Your task to perform on an android device: toggle javascript in the chrome app Image 0: 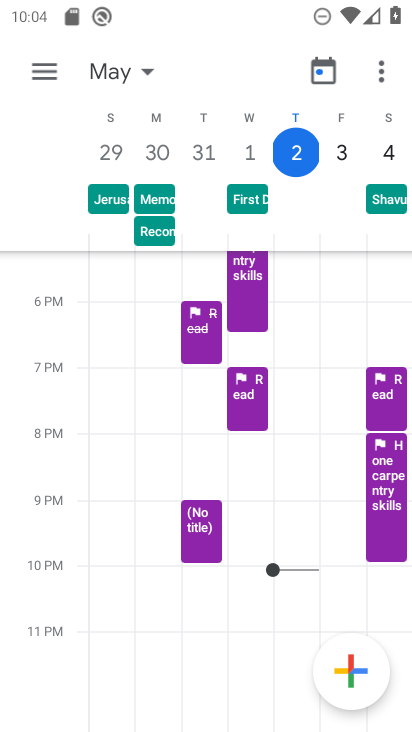
Step 0: press home button
Your task to perform on an android device: toggle javascript in the chrome app Image 1: 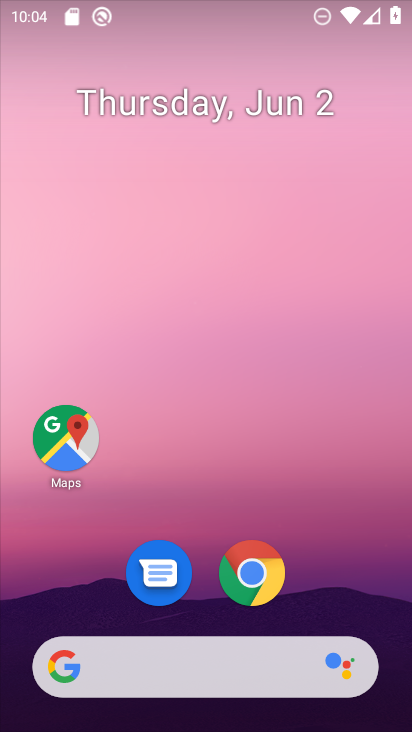
Step 1: drag from (323, 449) to (330, 115)
Your task to perform on an android device: toggle javascript in the chrome app Image 2: 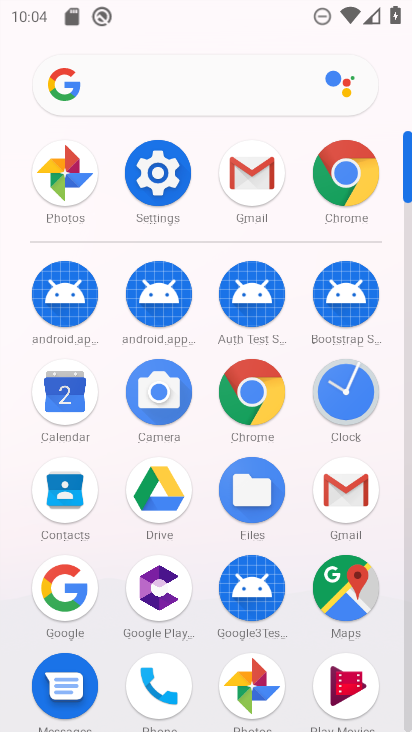
Step 2: click (251, 402)
Your task to perform on an android device: toggle javascript in the chrome app Image 3: 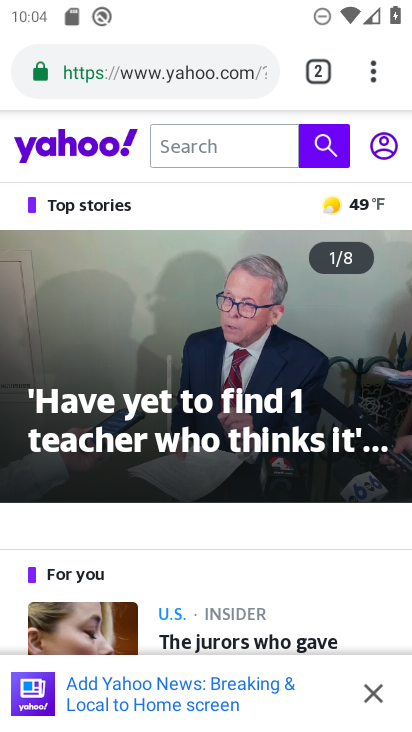
Step 3: drag from (382, 63) to (144, 576)
Your task to perform on an android device: toggle javascript in the chrome app Image 4: 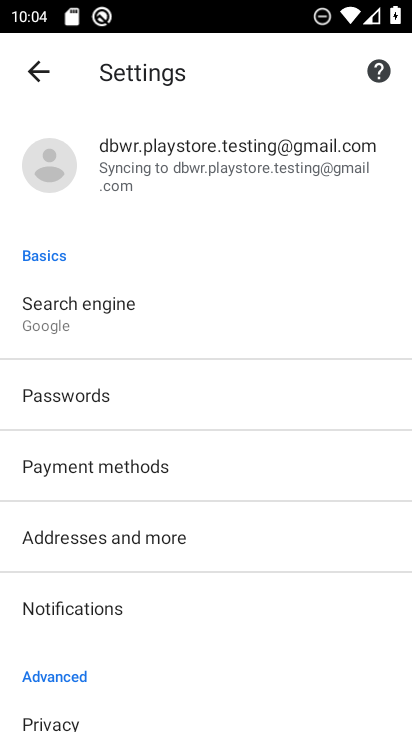
Step 4: drag from (150, 619) to (231, 204)
Your task to perform on an android device: toggle javascript in the chrome app Image 5: 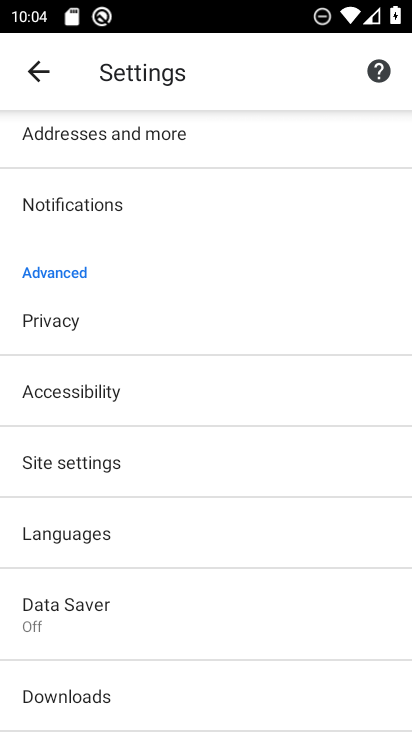
Step 5: click (85, 464)
Your task to perform on an android device: toggle javascript in the chrome app Image 6: 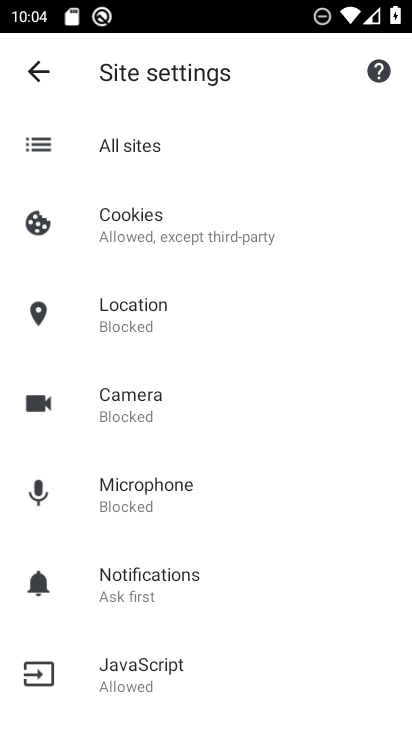
Step 6: click (143, 677)
Your task to perform on an android device: toggle javascript in the chrome app Image 7: 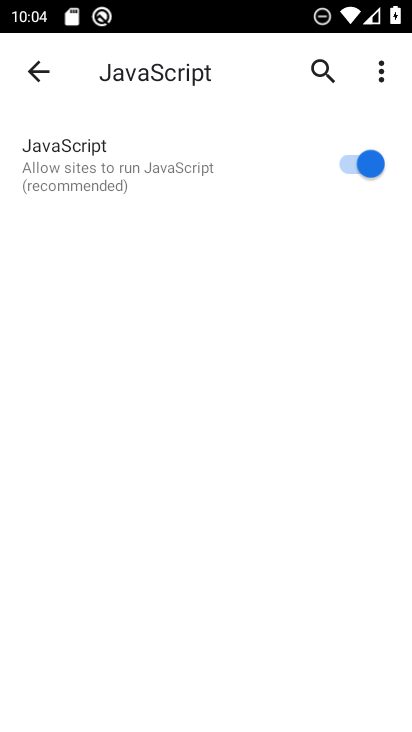
Step 7: click (358, 169)
Your task to perform on an android device: toggle javascript in the chrome app Image 8: 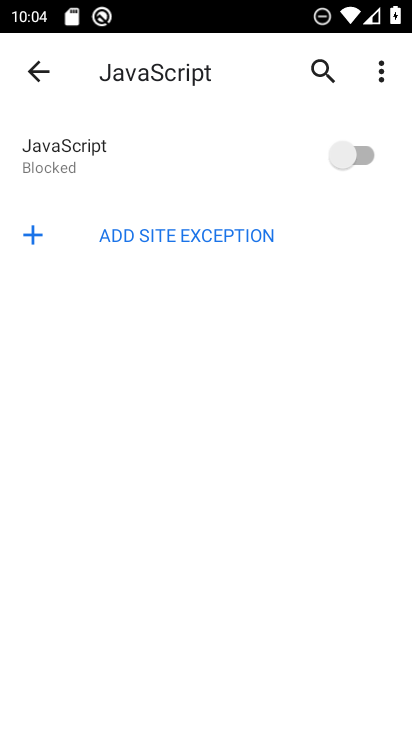
Step 8: task complete